Your task to perform on an android device: Search for seafood restaurants on Google Maps Image 0: 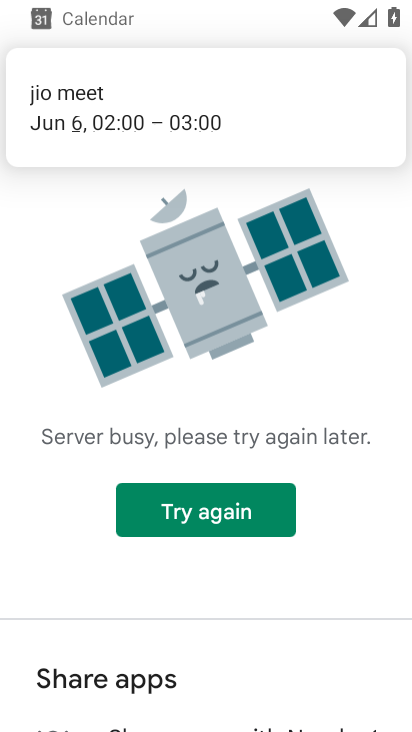
Step 0: press back button
Your task to perform on an android device: Search for seafood restaurants on Google Maps Image 1: 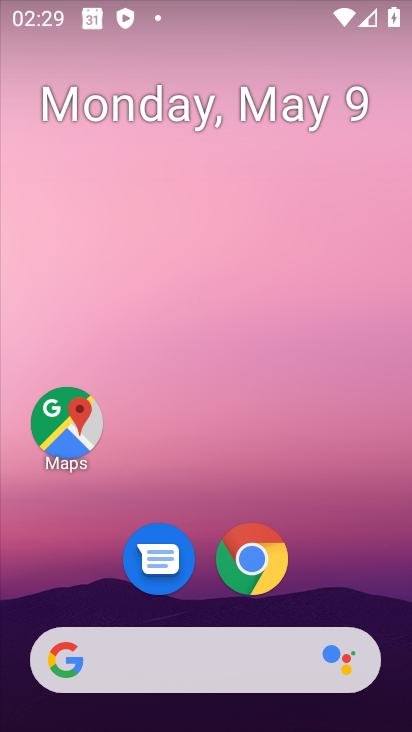
Step 1: click (64, 422)
Your task to perform on an android device: Search for seafood restaurants on Google Maps Image 2: 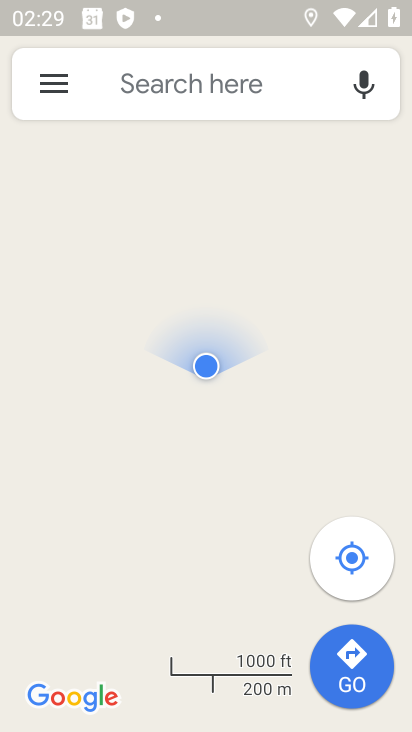
Step 2: click (243, 92)
Your task to perform on an android device: Search for seafood restaurants on Google Maps Image 3: 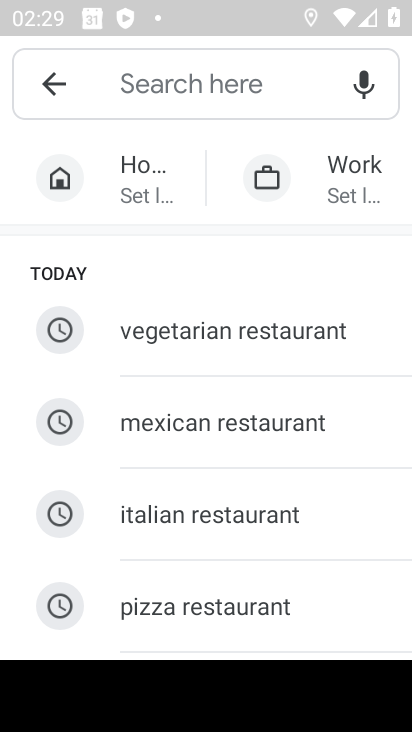
Step 3: type "seafood restaurants"
Your task to perform on an android device: Search for seafood restaurants on Google Maps Image 4: 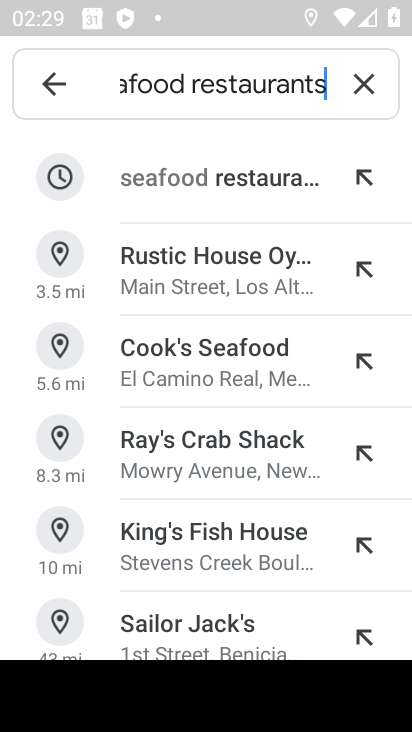
Step 4: click (268, 188)
Your task to perform on an android device: Search for seafood restaurants on Google Maps Image 5: 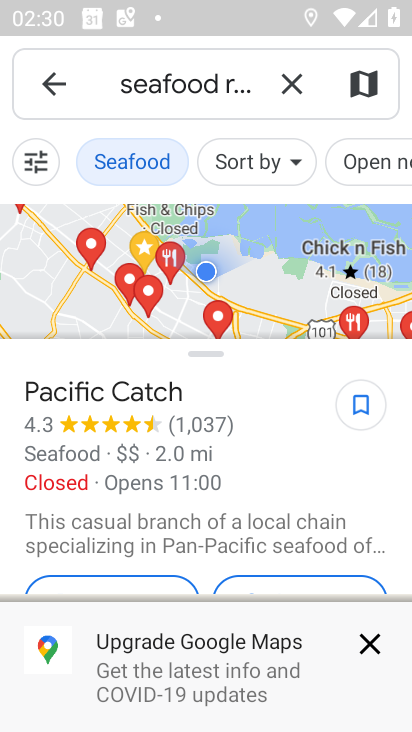
Step 5: task complete